Your task to perform on an android device: check data usage Image 0: 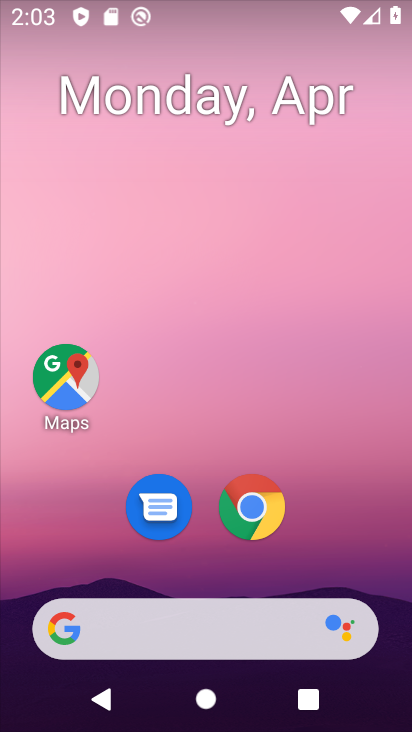
Step 0: drag from (390, 627) to (346, 2)
Your task to perform on an android device: check data usage Image 1: 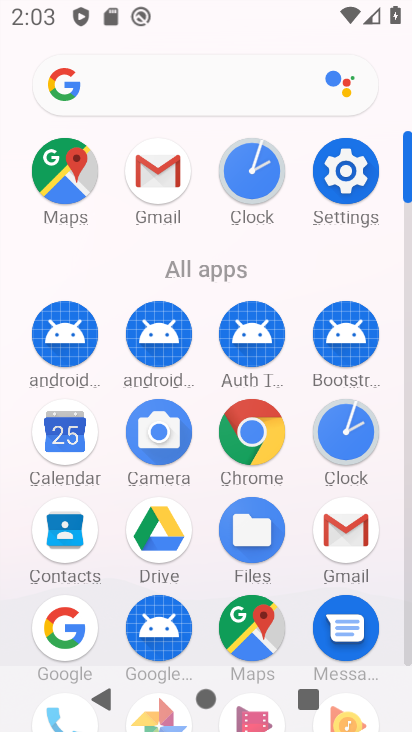
Step 1: click (407, 652)
Your task to perform on an android device: check data usage Image 2: 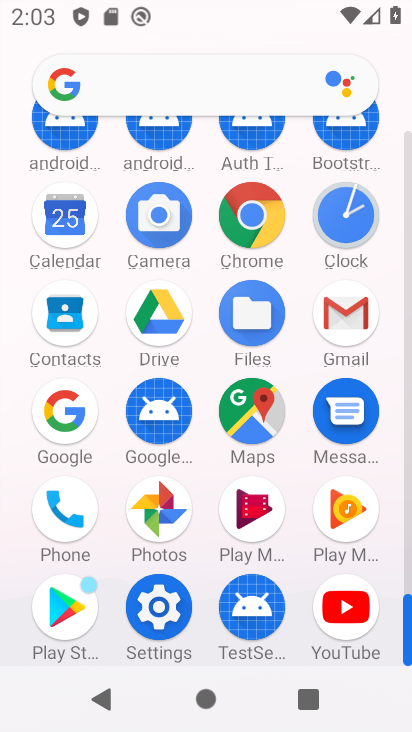
Step 2: click (159, 606)
Your task to perform on an android device: check data usage Image 3: 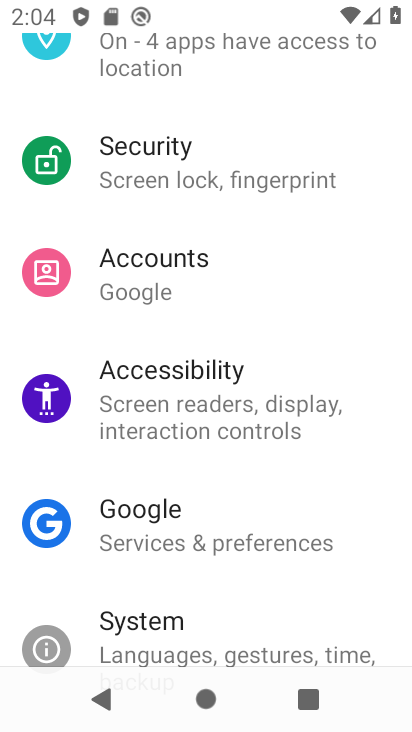
Step 3: drag from (371, 177) to (332, 520)
Your task to perform on an android device: check data usage Image 4: 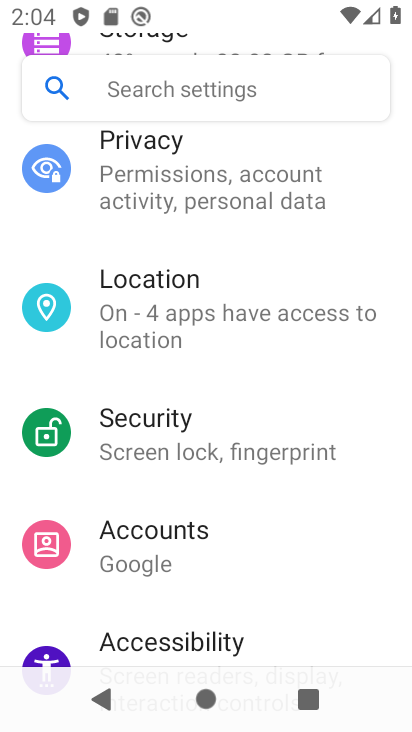
Step 4: drag from (344, 156) to (361, 522)
Your task to perform on an android device: check data usage Image 5: 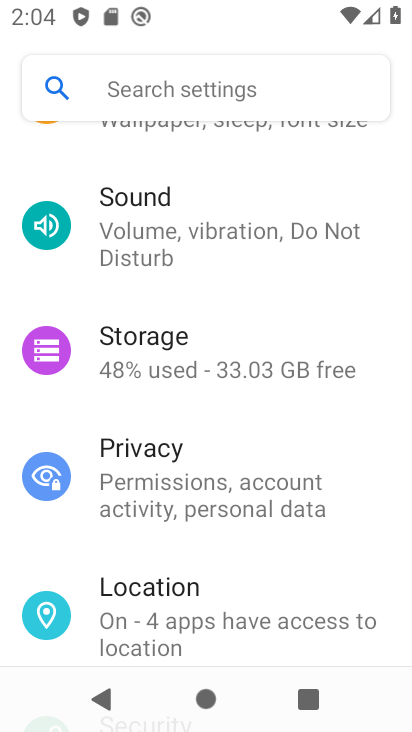
Step 5: drag from (374, 183) to (333, 521)
Your task to perform on an android device: check data usage Image 6: 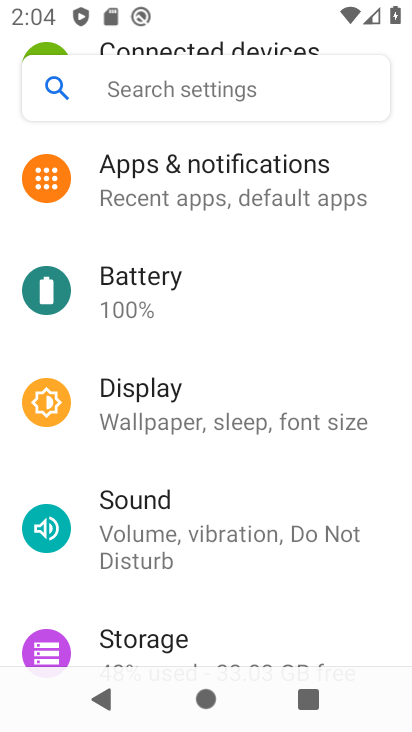
Step 6: drag from (380, 215) to (362, 509)
Your task to perform on an android device: check data usage Image 7: 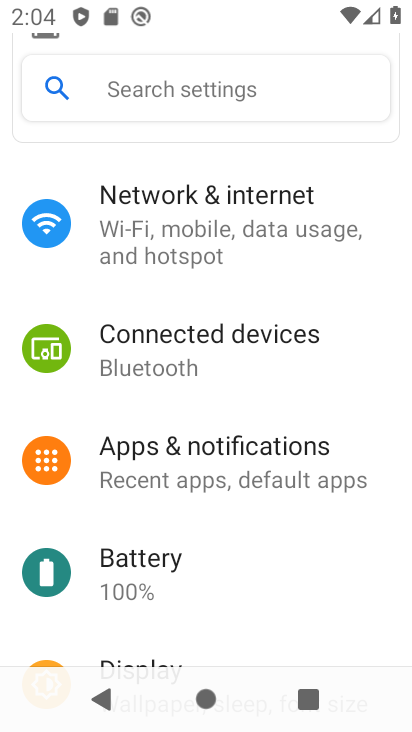
Step 7: click (155, 211)
Your task to perform on an android device: check data usage Image 8: 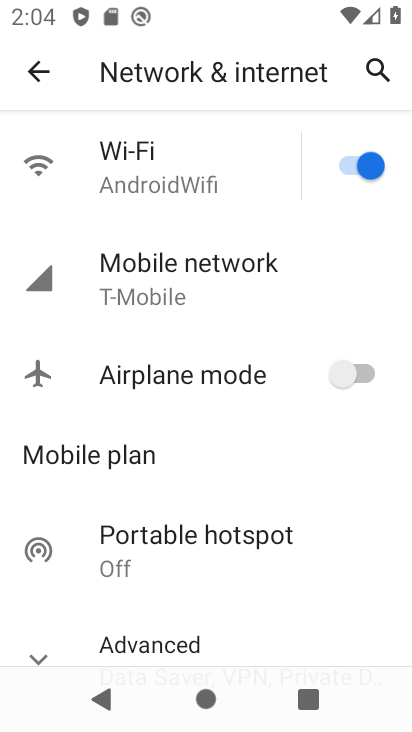
Step 8: click (136, 273)
Your task to perform on an android device: check data usage Image 9: 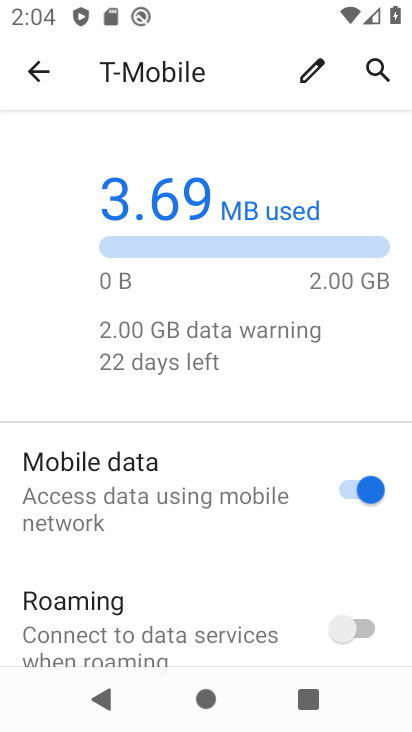
Step 9: task complete